Your task to perform on an android device: turn off improve location accuracy Image 0: 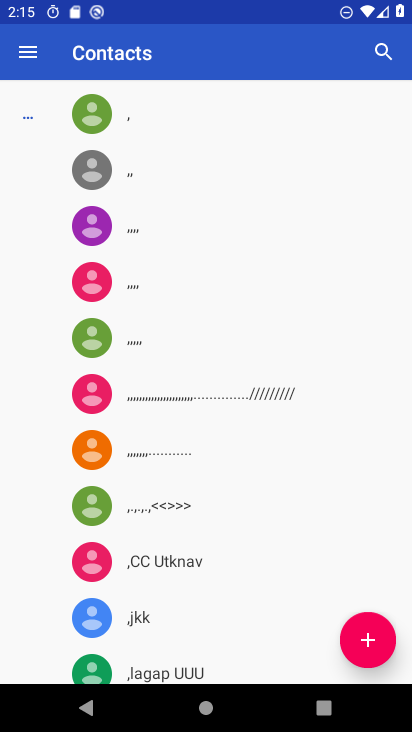
Step 0: press home button
Your task to perform on an android device: turn off improve location accuracy Image 1: 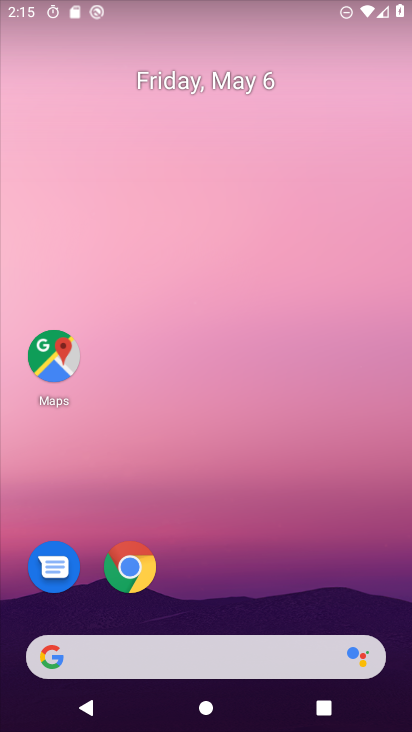
Step 1: drag from (263, 663) to (264, 338)
Your task to perform on an android device: turn off improve location accuracy Image 2: 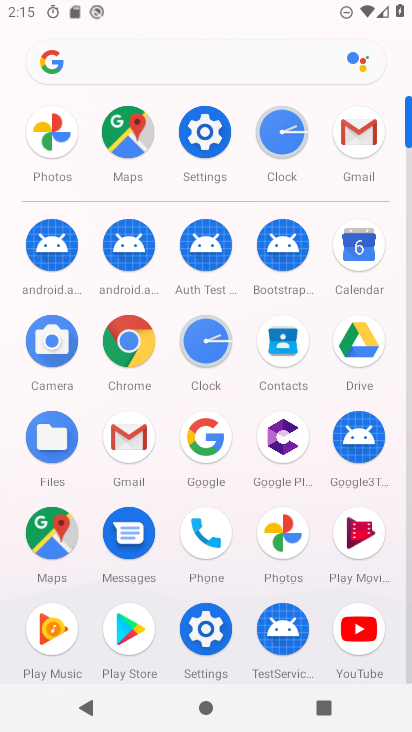
Step 2: click (212, 143)
Your task to perform on an android device: turn off improve location accuracy Image 3: 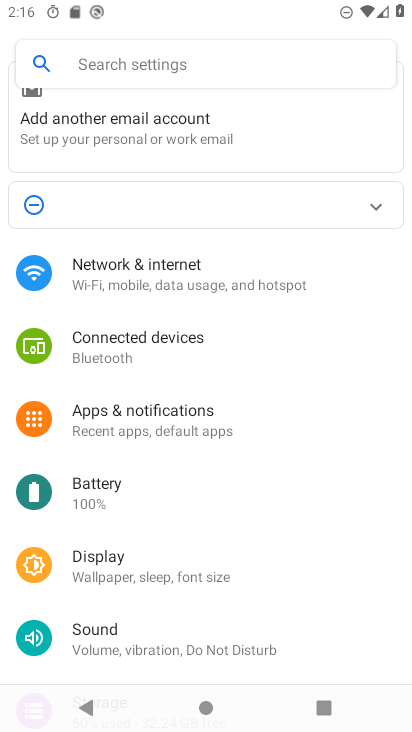
Step 3: click (205, 50)
Your task to perform on an android device: turn off improve location accuracy Image 4: 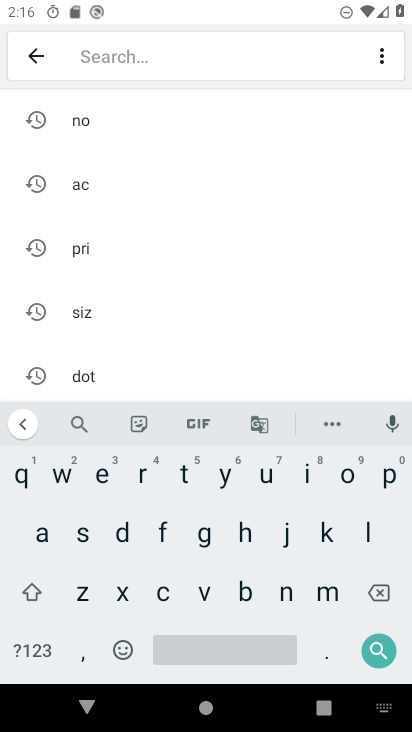
Step 4: click (374, 528)
Your task to perform on an android device: turn off improve location accuracy Image 5: 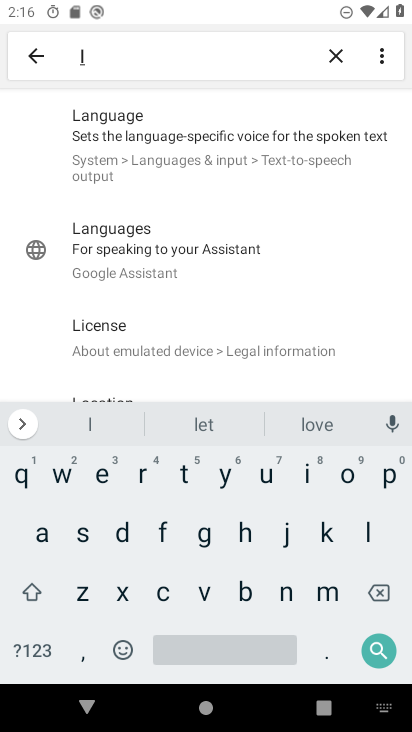
Step 5: click (348, 479)
Your task to perform on an android device: turn off improve location accuracy Image 6: 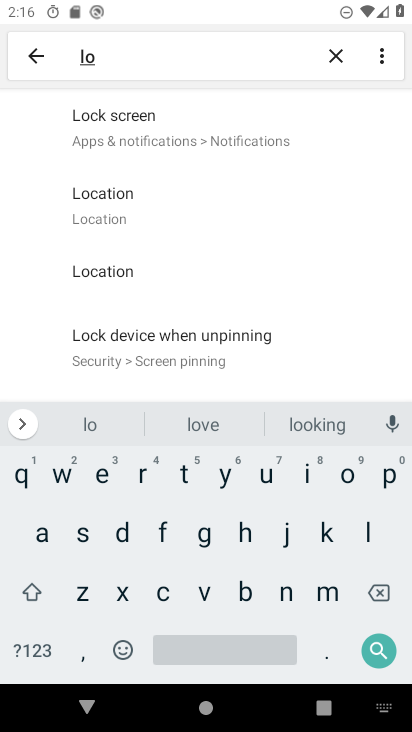
Step 6: click (162, 587)
Your task to perform on an android device: turn off improve location accuracy Image 7: 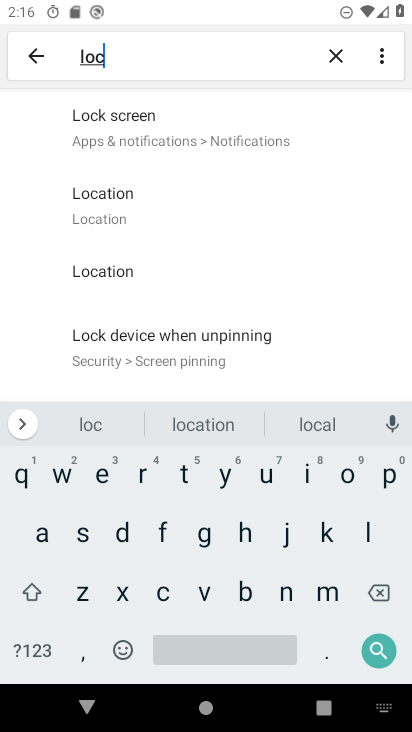
Step 7: click (143, 213)
Your task to perform on an android device: turn off improve location accuracy Image 8: 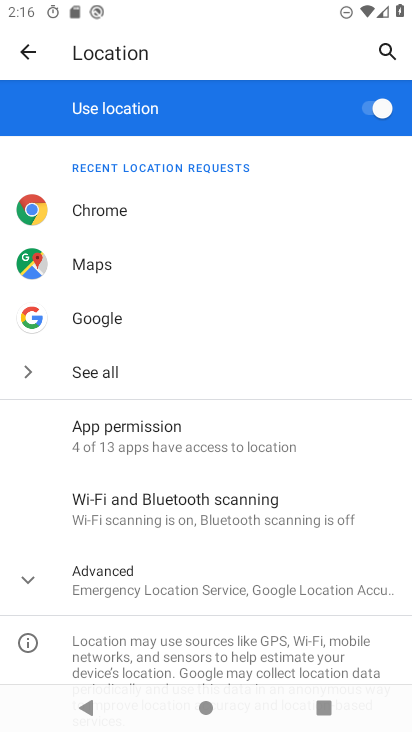
Step 8: click (41, 566)
Your task to perform on an android device: turn off improve location accuracy Image 9: 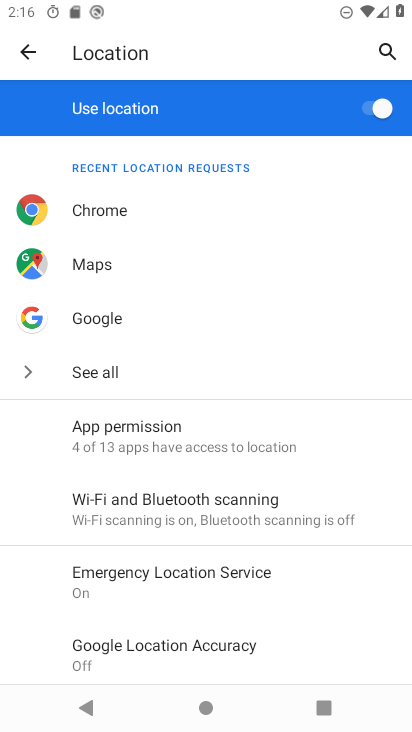
Step 9: drag from (74, 563) to (111, 459)
Your task to perform on an android device: turn off improve location accuracy Image 10: 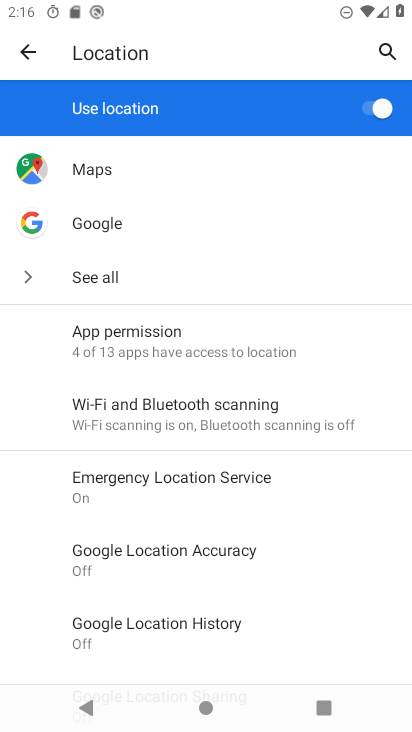
Step 10: click (143, 553)
Your task to perform on an android device: turn off improve location accuracy Image 11: 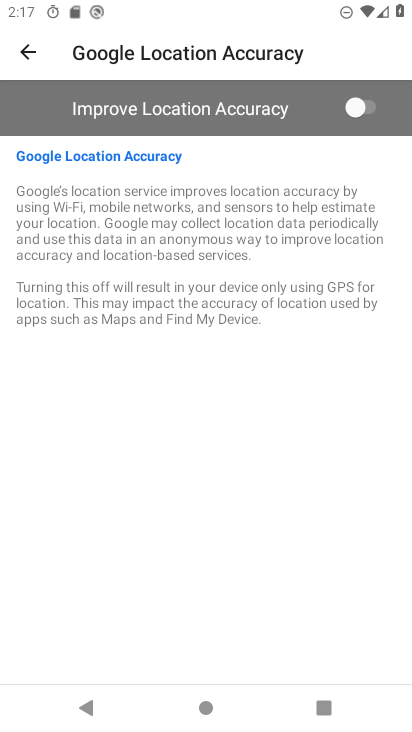
Step 11: click (337, 121)
Your task to perform on an android device: turn off improve location accuracy Image 12: 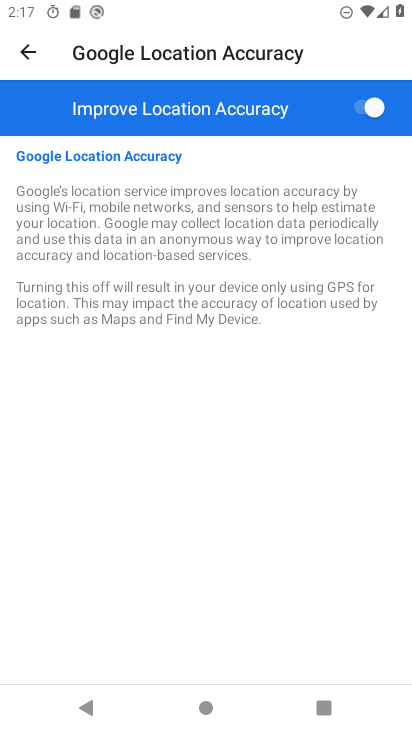
Step 12: click (337, 120)
Your task to perform on an android device: turn off improve location accuracy Image 13: 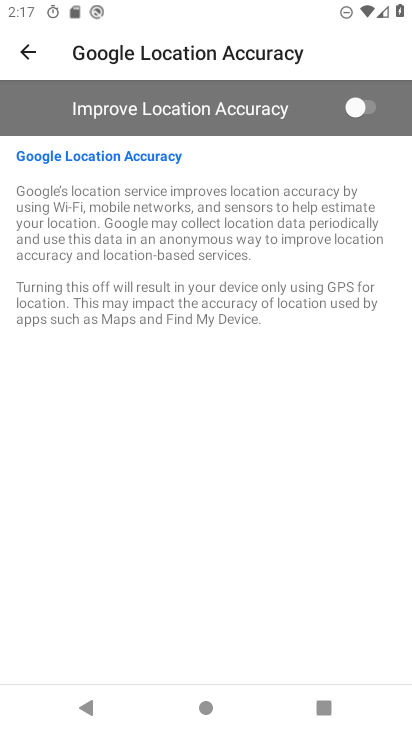
Step 13: task complete